Your task to perform on an android device: toggle show notifications on the lock screen Image 0: 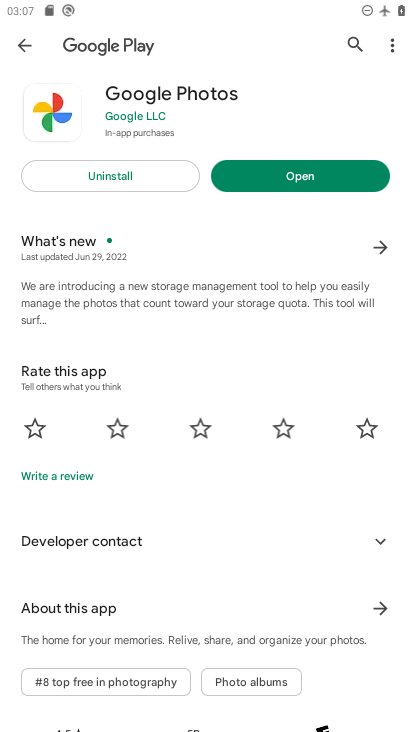
Step 0: press home button
Your task to perform on an android device: toggle show notifications on the lock screen Image 1: 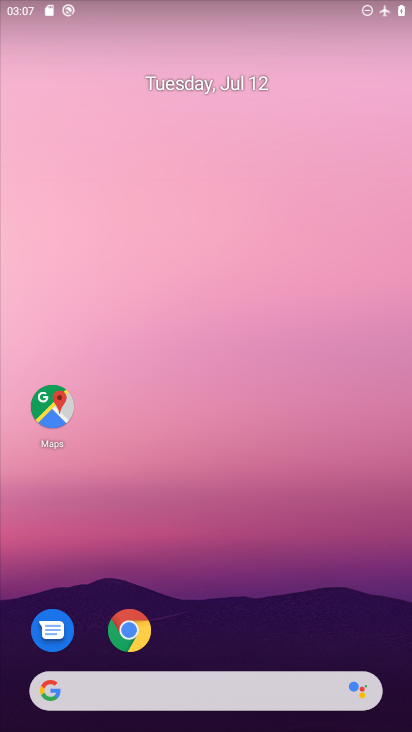
Step 1: drag from (383, 627) to (356, 208)
Your task to perform on an android device: toggle show notifications on the lock screen Image 2: 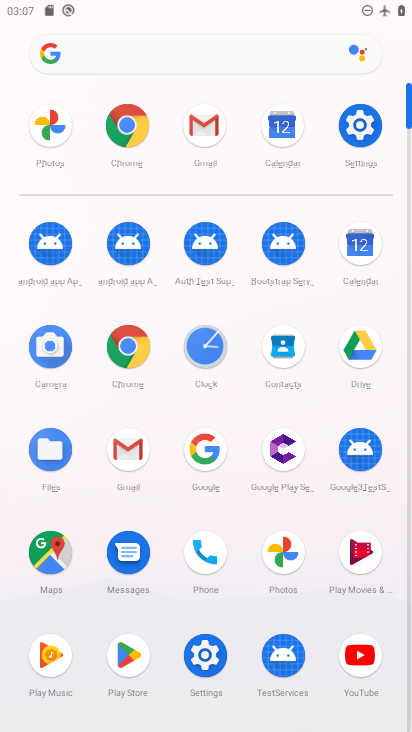
Step 2: click (204, 656)
Your task to perform on an android device: toggle show notifications on the lock screen Image 3: 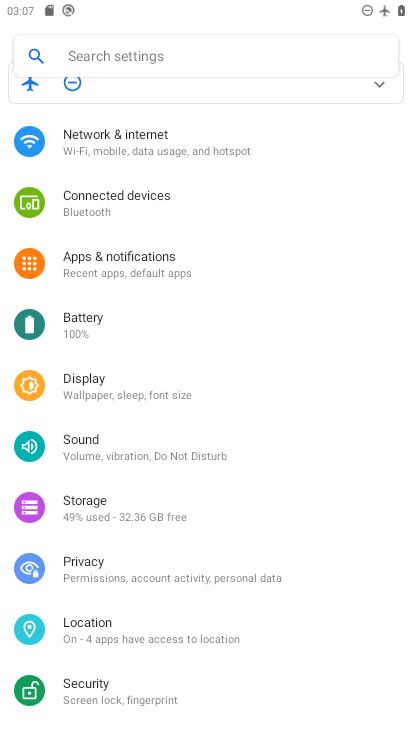
Step 3: click (130, 266)
Your task to perform on an android device: toggle show notifications on the lock screen Image 4: 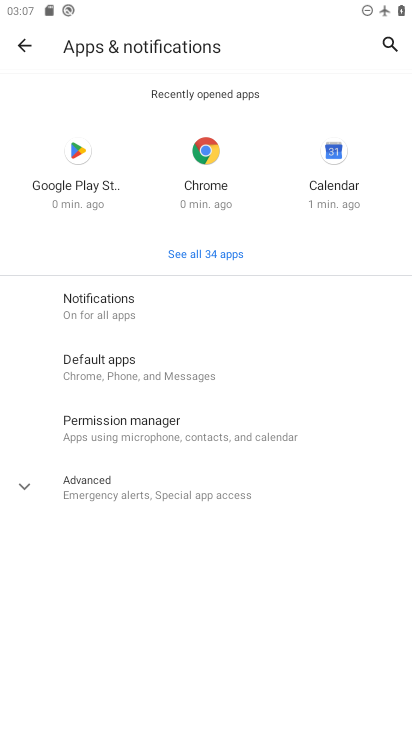
Step 4: click (96, 295)
Your task to perform on an android device: toggle show notifications on the lock screen Image 5: 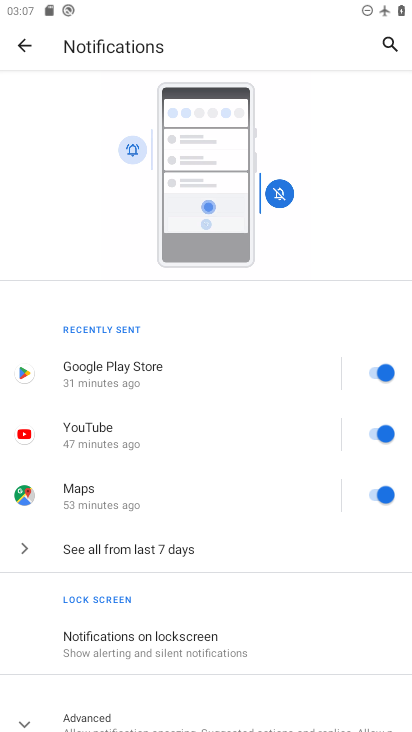
Step 5: click (182, 634)
Your task to perform on an android device: toggle show notifications on the lock screen Image 6: 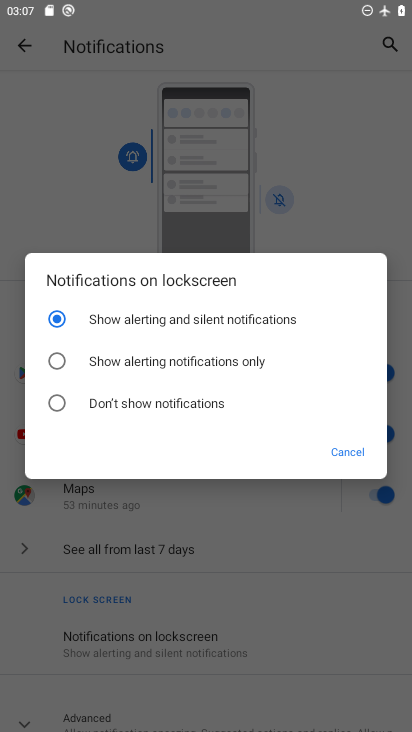
Step 6: click (51, 368)
Your task to perform on an android device: toggle show notifications on the lock screen Image 7: 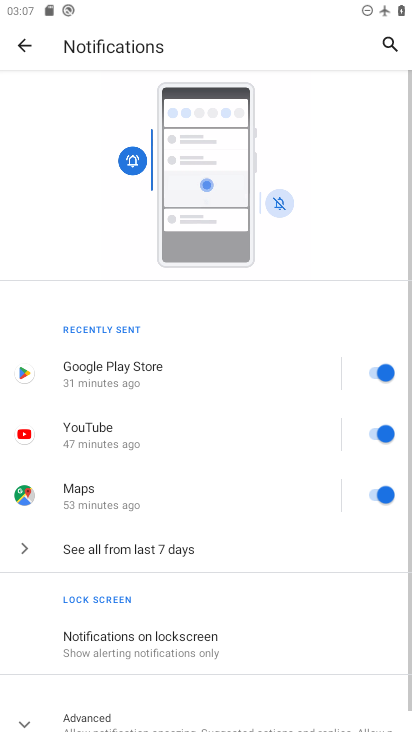
Step 7: task complete